Your task to perform on an android device: check battery use Image 0: 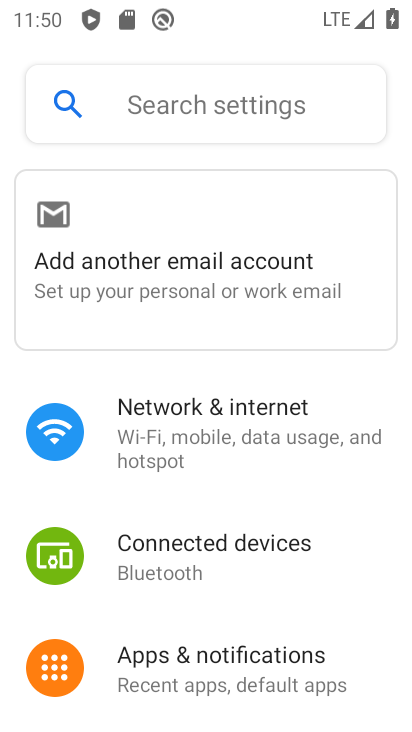
Step 0: drag from (179, 605) to (185, 143)
Your task to perform on an android device: check battery use Image 1: 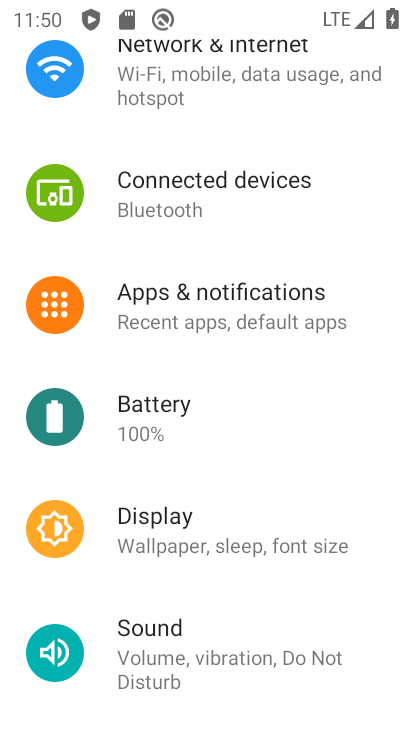
Step 1: click (159, 431)
Your task to perform on an android device: check battery use Image 2: 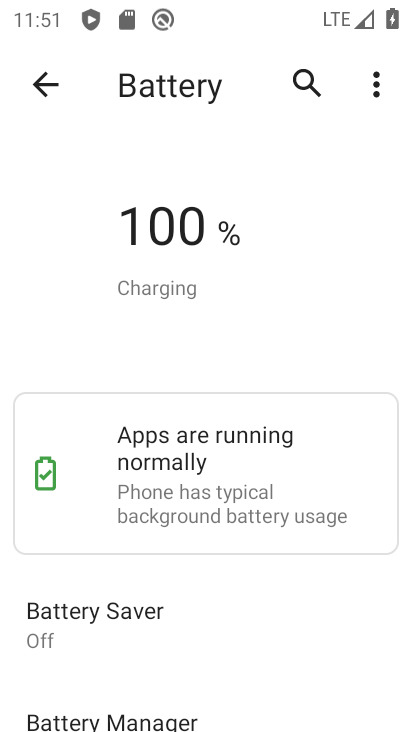
Step 2: task complete